Your task to perform on an android device: Open Reddit.com Image 0: 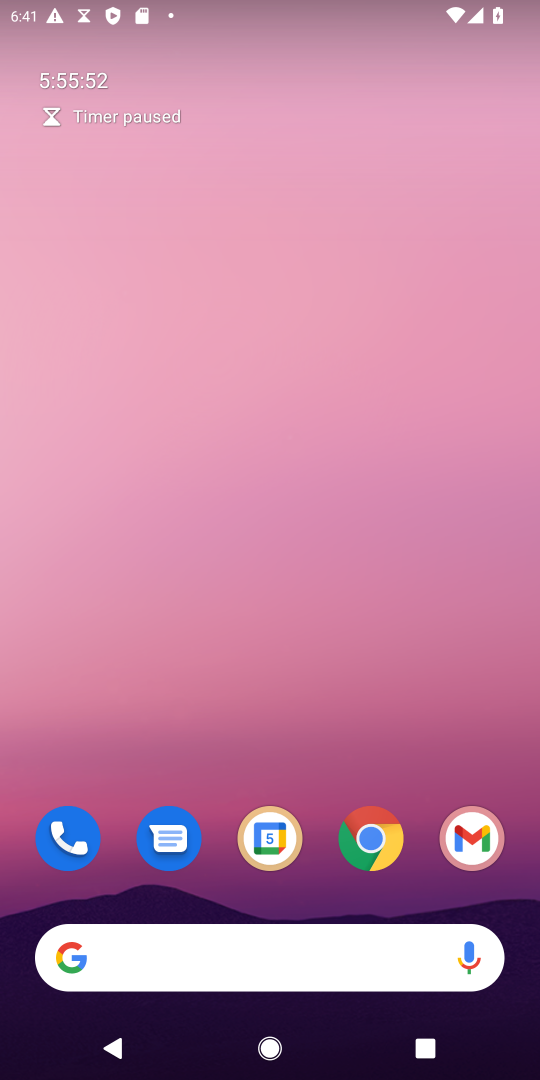
Step 0: press home button
Your task to perform on an android device: Open Reddit.com Image 1: 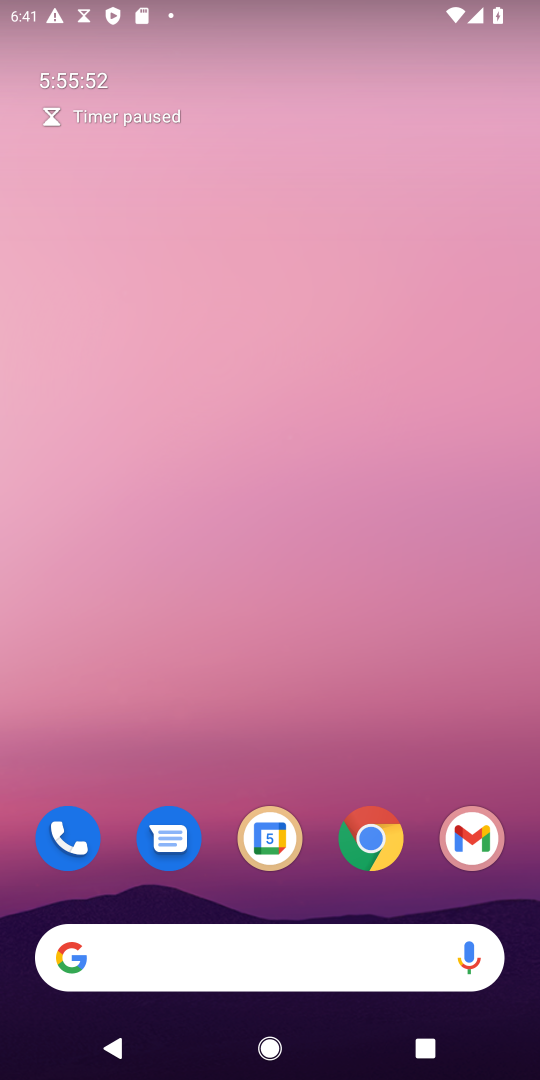
Step 1: click (77, 948)
Your task to perform on an android device: Open Reddit.com Image 2: 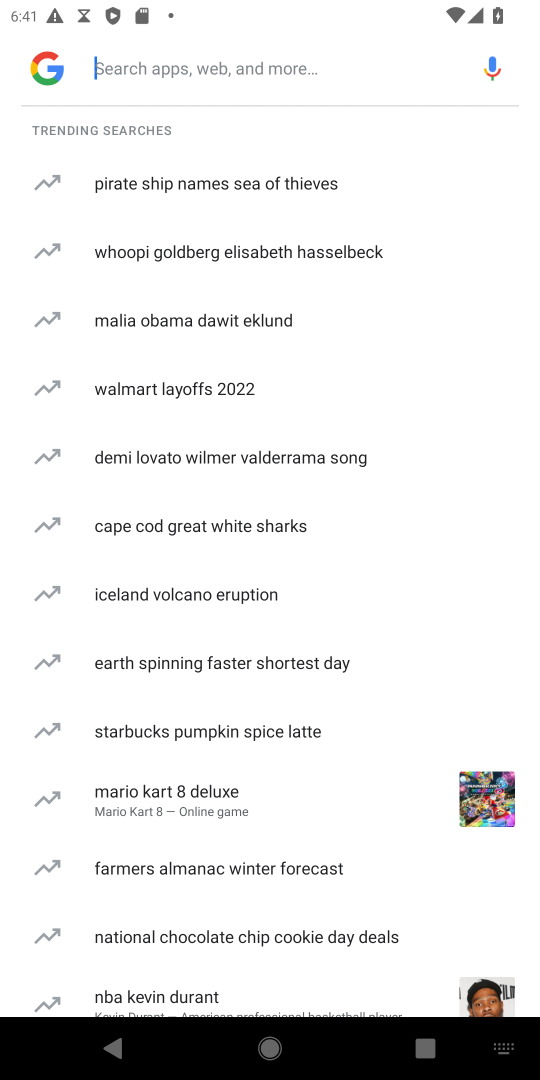
Step 2: type " Reddit.com"
Your task to perform on an android device: Open Reddit.com Image 3: 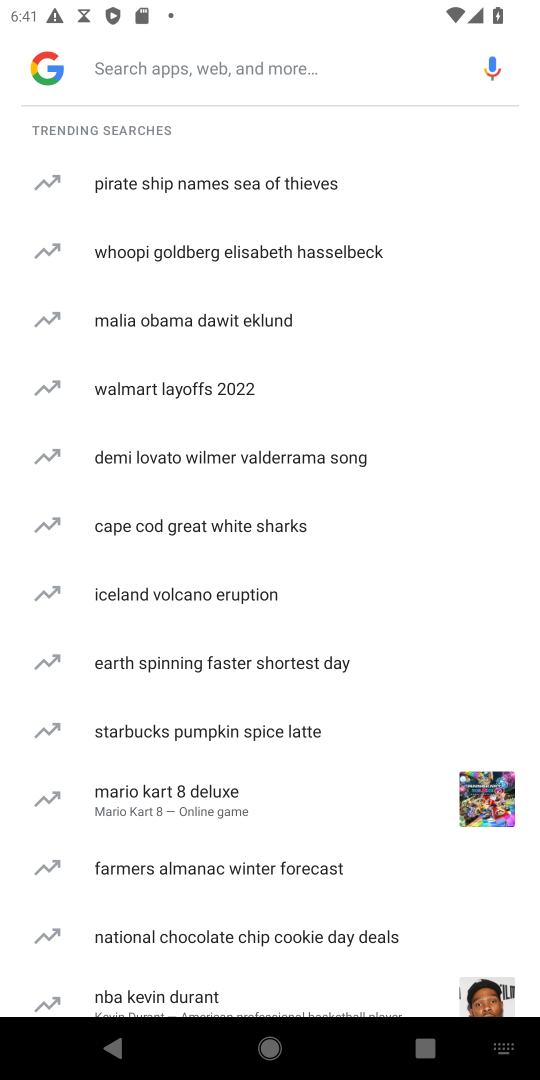
Step 3: click (122, 71)
Your task to perform on an android device: Open Reddit.com Image 4: 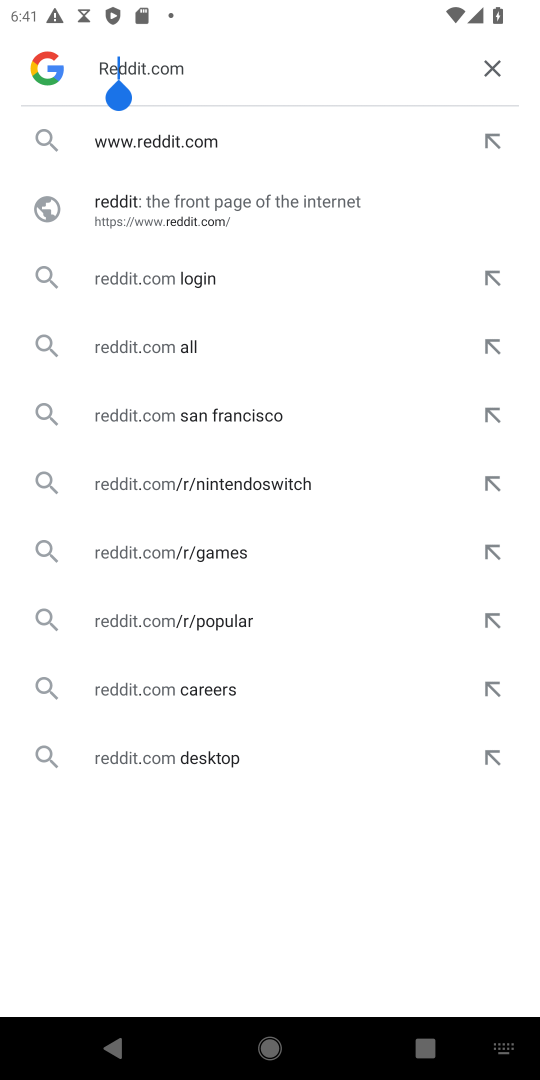
Step 4: press enter
Your task to perform on an android device: Open Reddit.com Image 5: 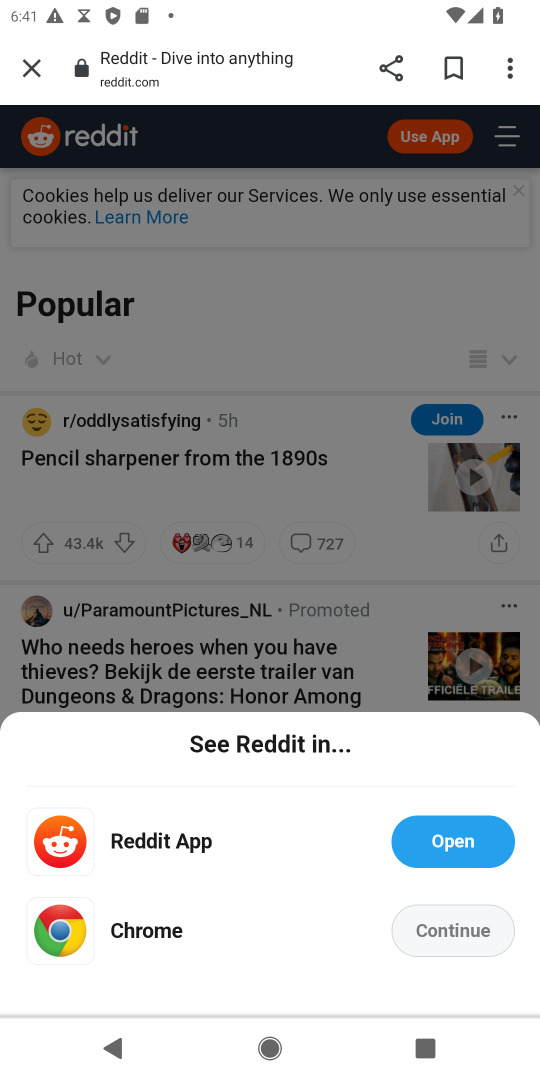
Step 5: task complete